Your task to perform on an android device: Go to privacy settings Image 0: 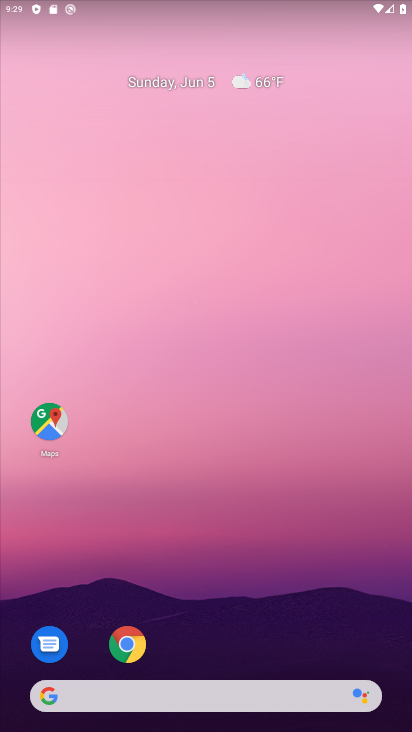
Step 0: drag from (222, 651) to (327, 173)
Your task to perform on an android device: Go to privacy settings Image 1: 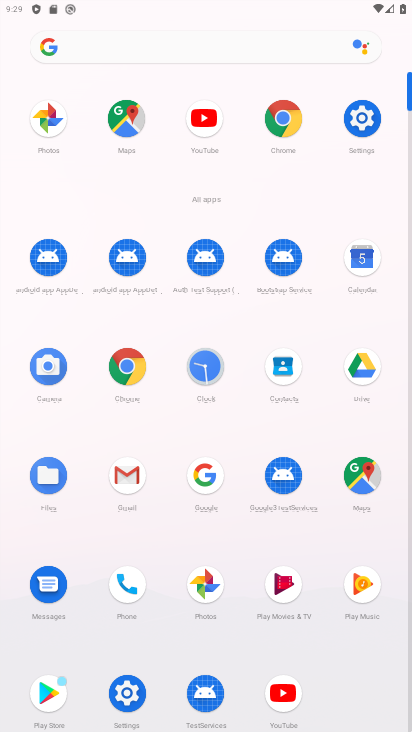
Step 1: click (369, 127)
Your task to perform on an android device: Go to privacy settings Image 2: 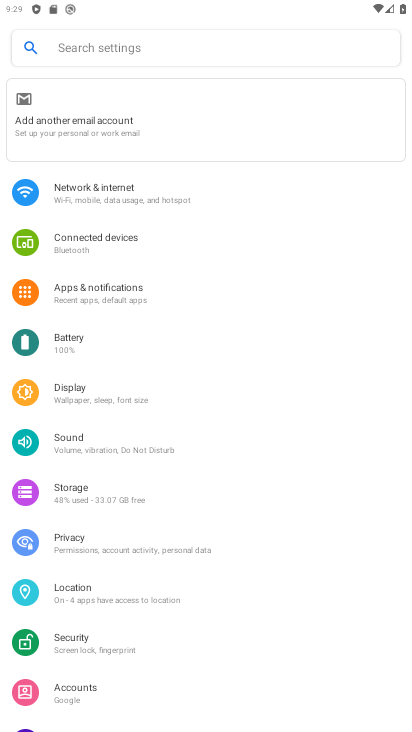
Step 2: click (94, 547)
Your task to perform on an android device: Go to privacy settings Image 3: 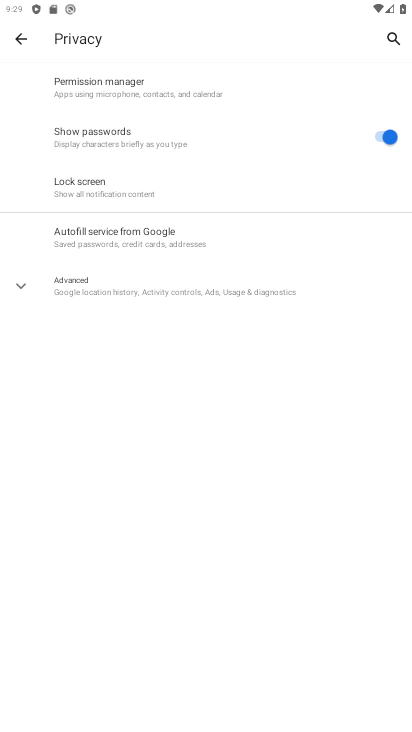
Step 3: task complete